Your task to perform on an android device: Open Maps and search for coffee Image 0: 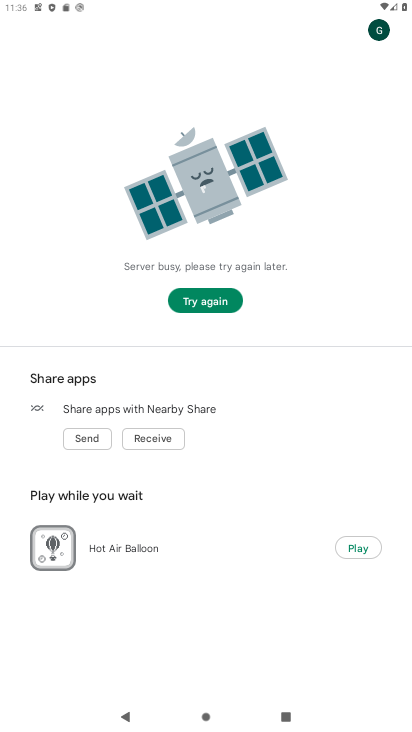
Step 0: press home button
Your task to perform on an android device: Open Maps and search for coffee Image 1: 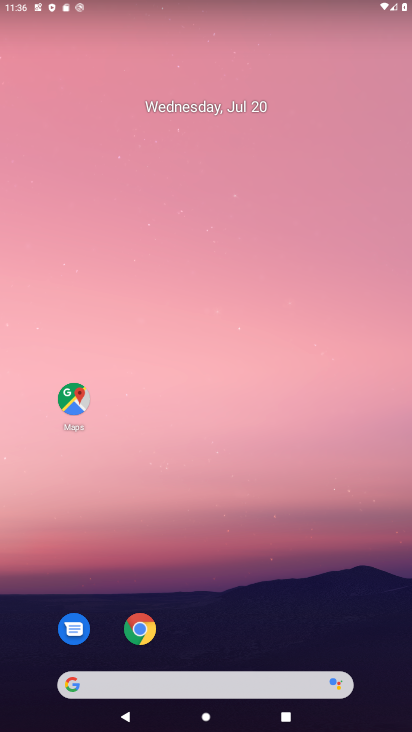
Step 1: drag from (295, 658) to (340, 165)
Your task to perform on an android device: Open Maps and search for coffee Image 2: 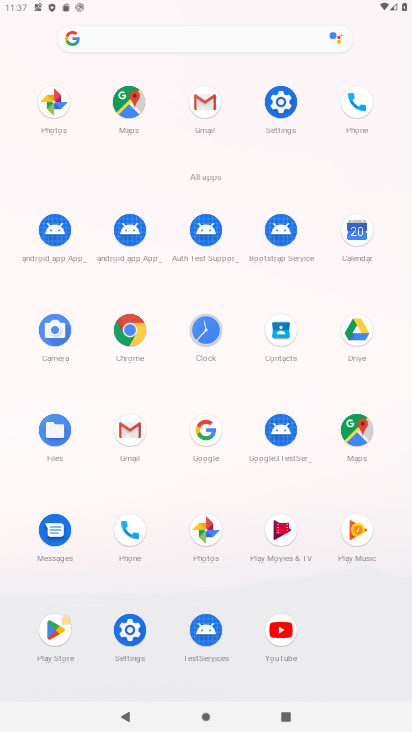
Step 2: click (133, 98)
Your task to perform on an android device: Open Maps and search for coffee Image 3: 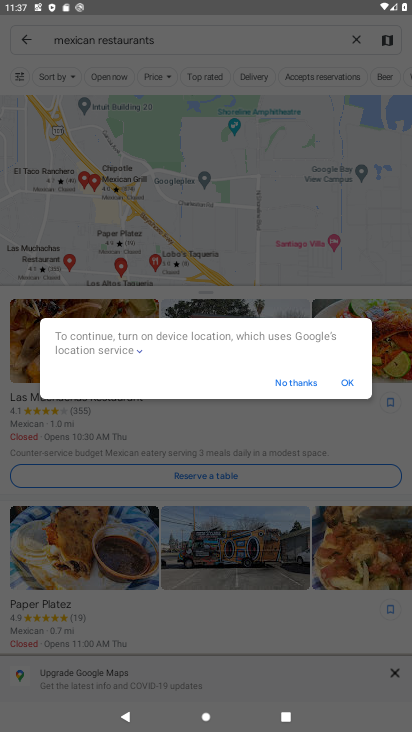
Step 3: click (339, 383)
Your task to perform on an android device: Open Maps and search for coffee Image 4: 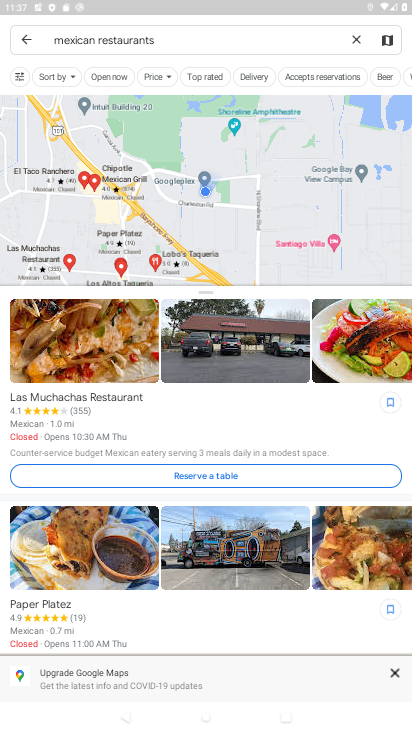
Step 4: click (351, 36)
Your task to perform on an android device: Open Maps and search for coffee Image 5: 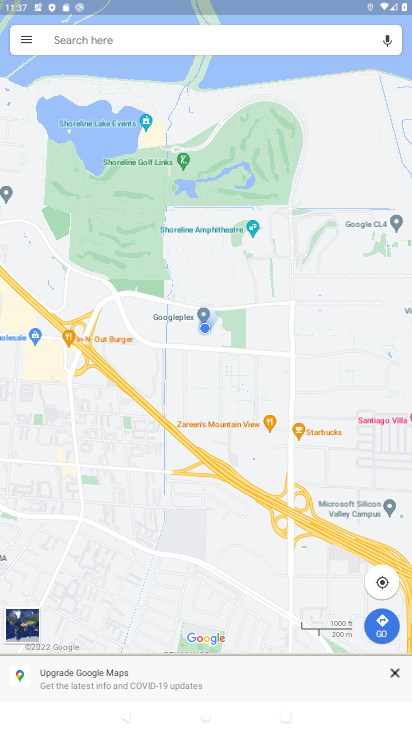
Step 5: click (191, 42)
Your task to perform on an android device: Open Maps and search for coffee Image 6: 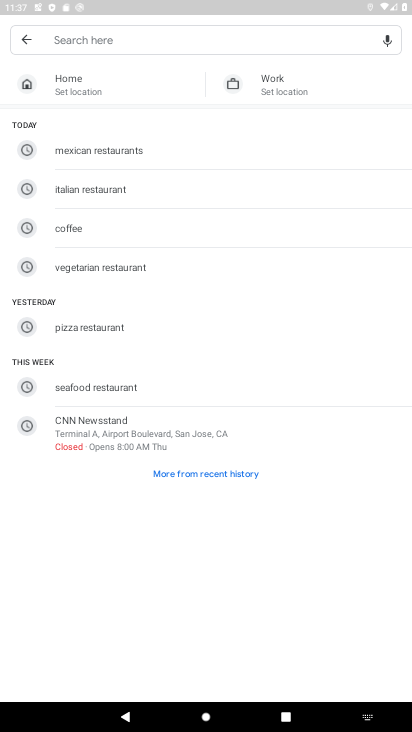
Step 6: click (115, 228)
Your task to perform on an android device: Open Maps and search for coffee Image 7: 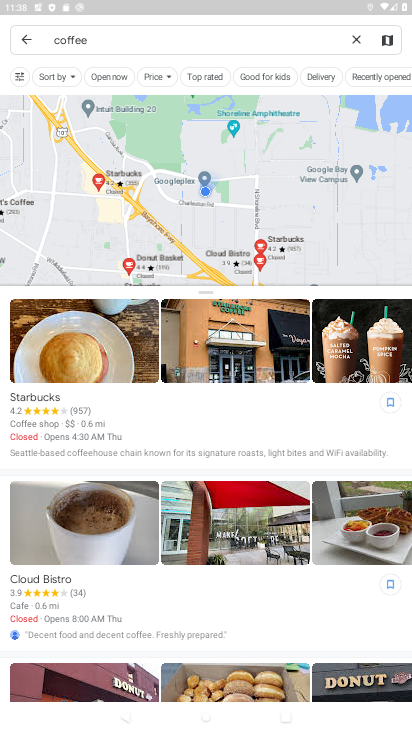
Step 7: task complete